Your task to perform on an android device: turn off sleep mode Image 0: 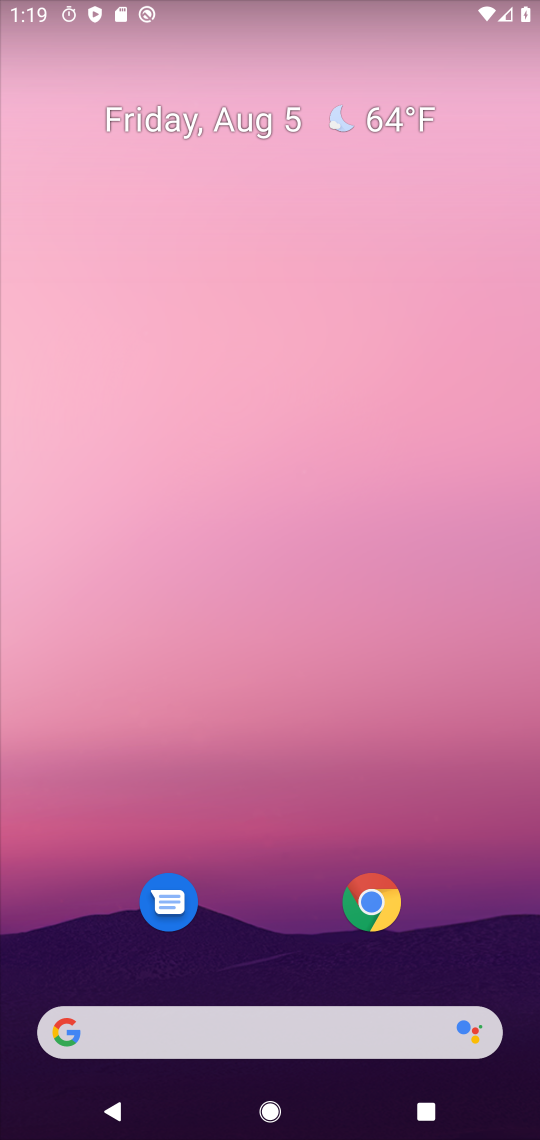
Step 0: press home button
Your task to perform on an android device: turn off sleep mode Image 1: 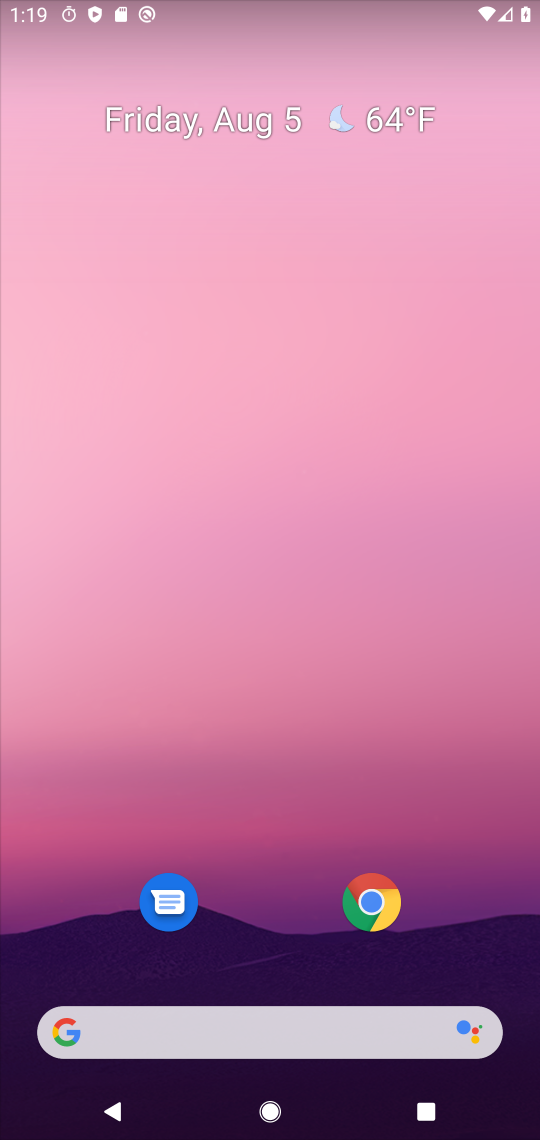
Step 1: drag from (334, 1036) to (306, 392)
Your task to perform on an android device: turn off sleep mode Image 2: 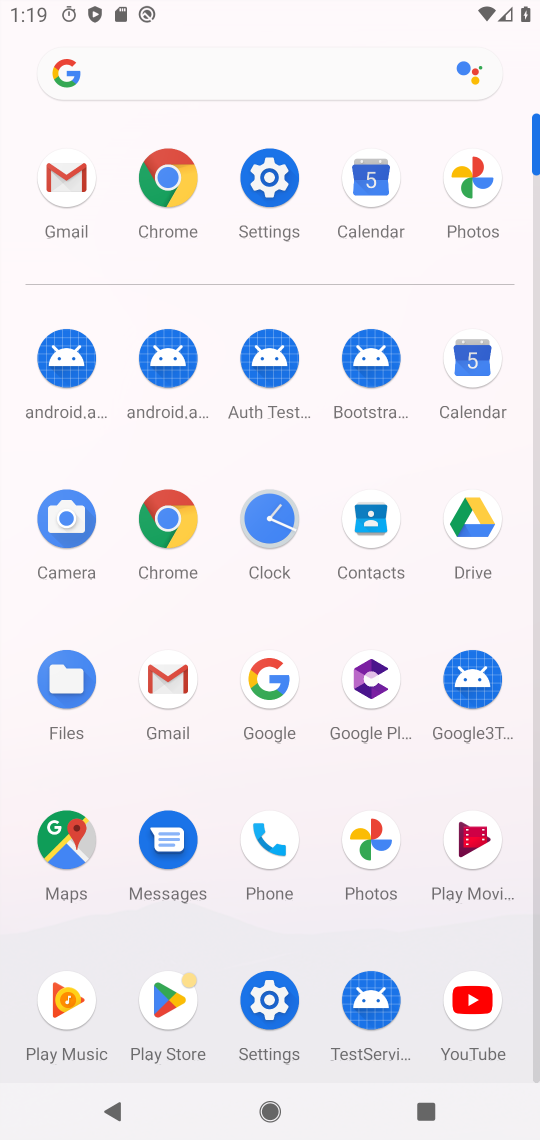
Step 2: click (265, 212)
Your task to perform on an android device: turn off sleep mode Image 3: 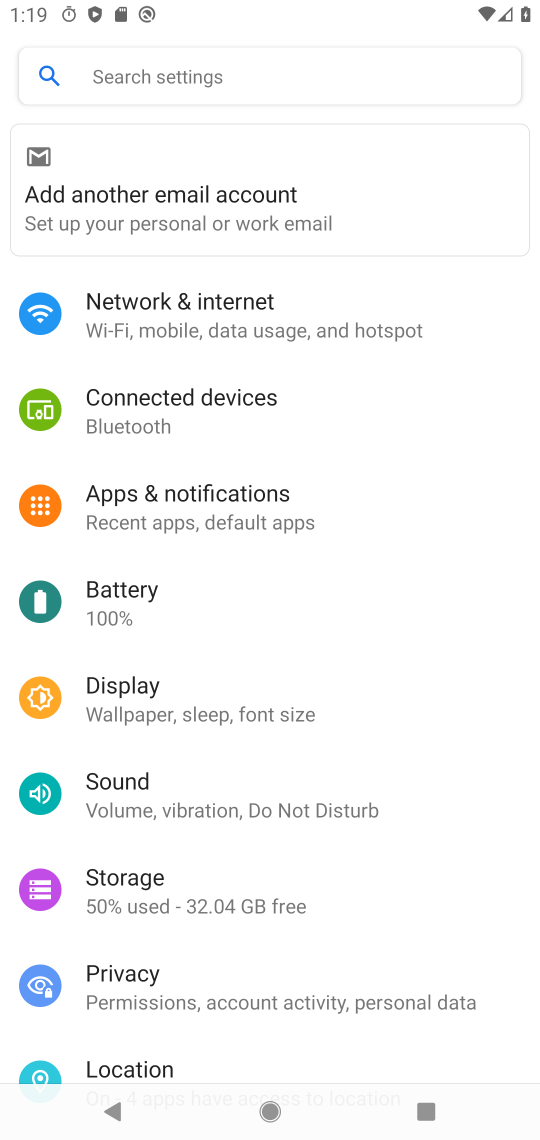
Step 3: click (154, 67)
Your task to perform on an android device: turn off sleep mode Image 4: 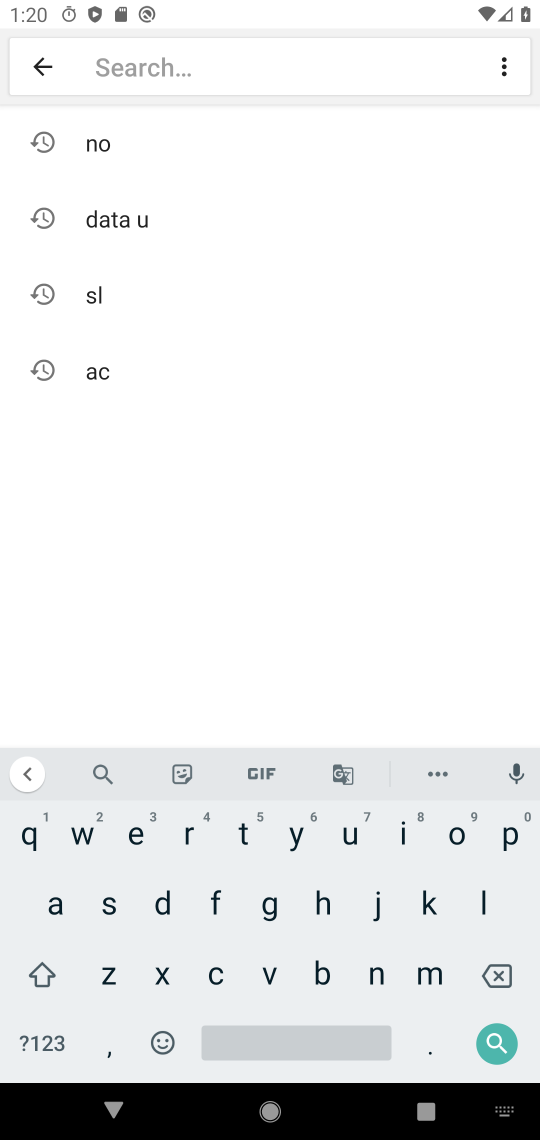
Step 4: click (108, 292)
Your task to perform on an android device: turn off sleep mode Image 5: 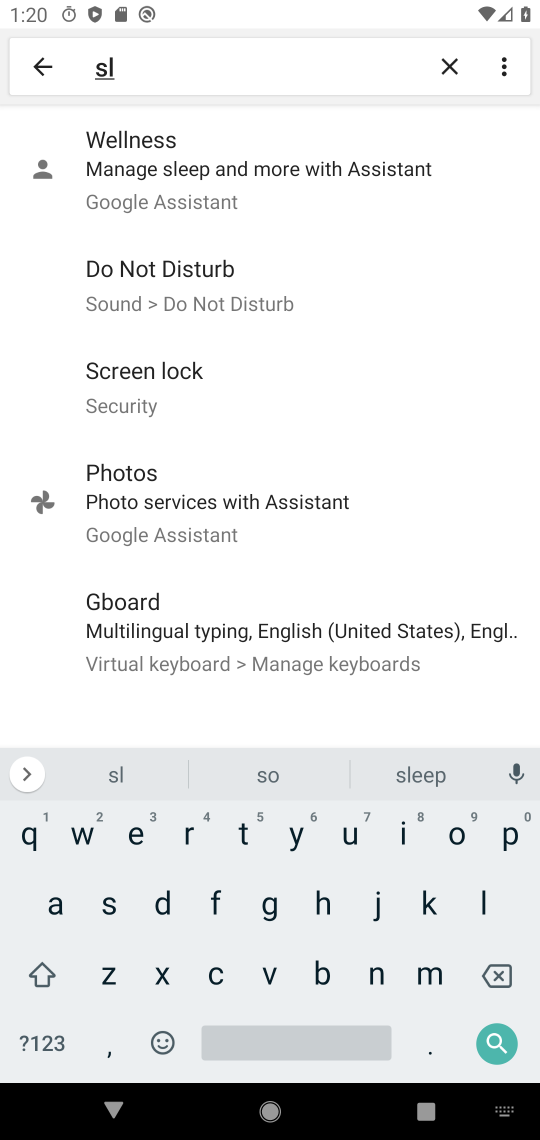
Step 5: click (216, 268)
Your task to perform on an android device: turn off sleep mode Image 6: 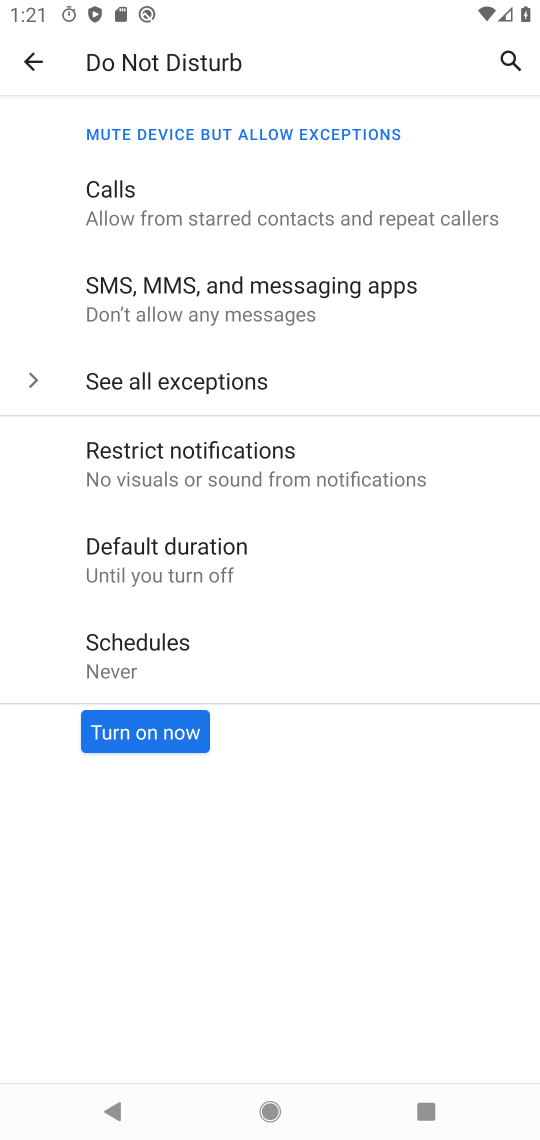
Step 6: task complete